Your task to perform on an android device: turn on data saver in the chrome app Image 0: 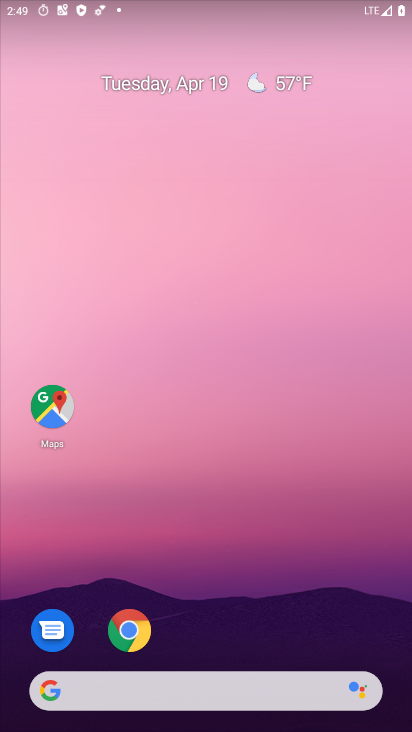
Step 0: drag from (225, 633) to (218, 146)
Your task to perform on an android device: turn on data saver in the chrome app Image 1: 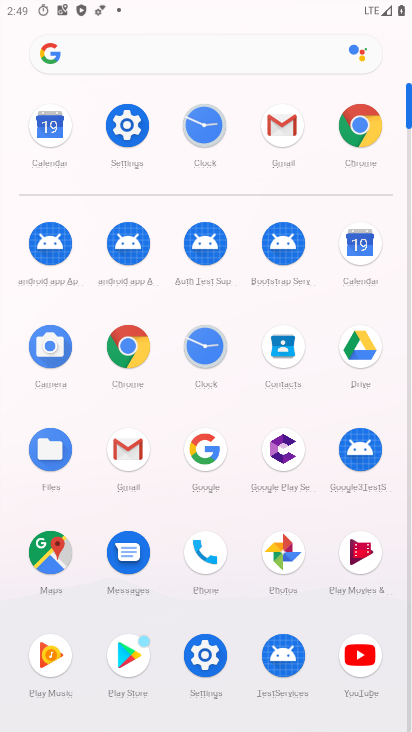
Step 1: click (124, 340)
Your task to perform on an android device: turn on data saver in the chrome app Image 2: 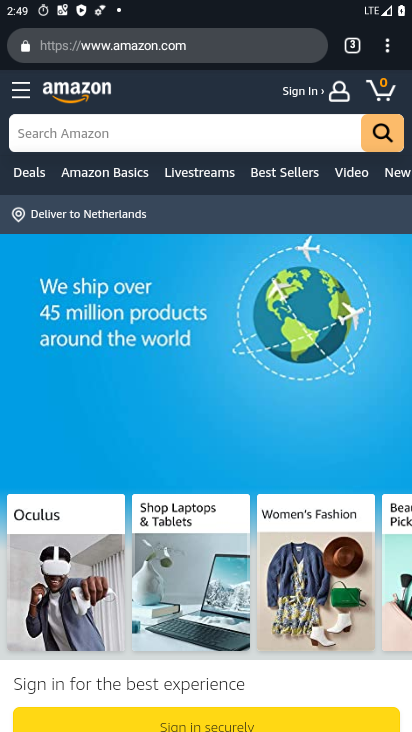
Step 2: click (386, 56)
Your task to perform on an android device: turn on data saver in the chrome app Image 3: 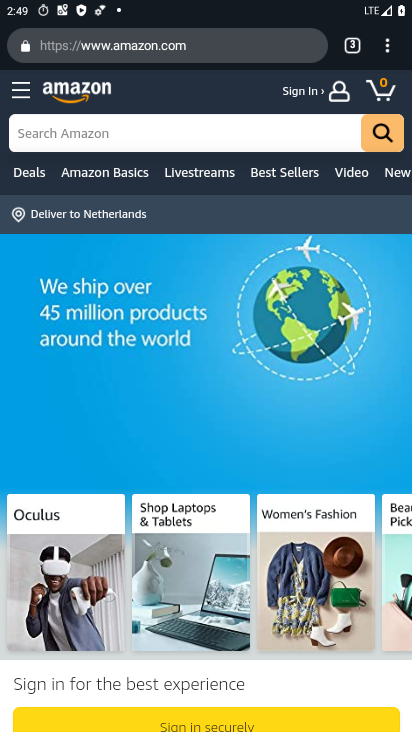
Step 3: click (387, 51)
Your task to perform on an android device: turn on data saver in the chrome app Image 4: 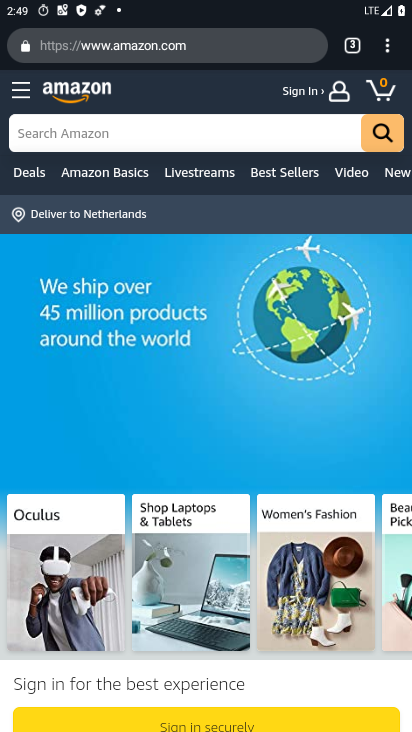
Step 4: click (379, 50)
Your task to perform on an android device: turn on data saver in the chrome app Image 5: 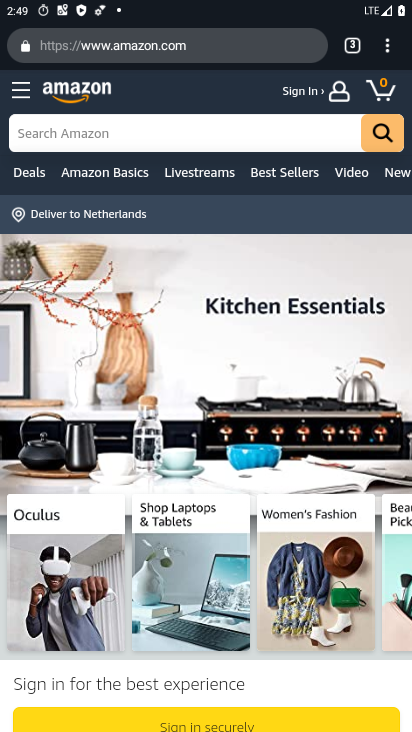
Step 5: click (386, 47)
Your task to perform on an android device: turn on data saver in the chrome app Image 6: 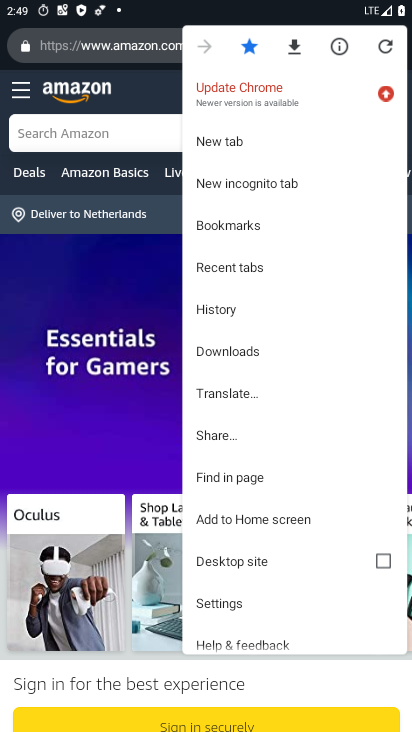
Step 6: click (270, 606)
Your task to perform on an android device: turn on data saver in the chrome app Image 7: 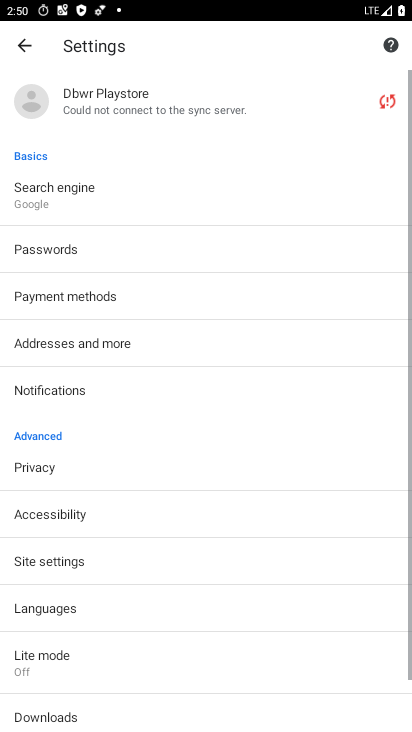
Step 7: drag from (215, 619) to (213, 276)
Your task to perform on an android device: turn on data saver in the chrome app Image 8: 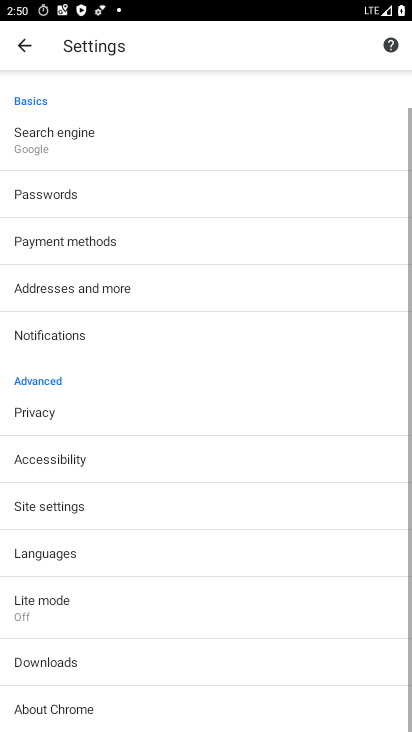
Step 8: click (85, 597)
Your task to perform on an android device: turn on data saver in the chrome app Image 9: 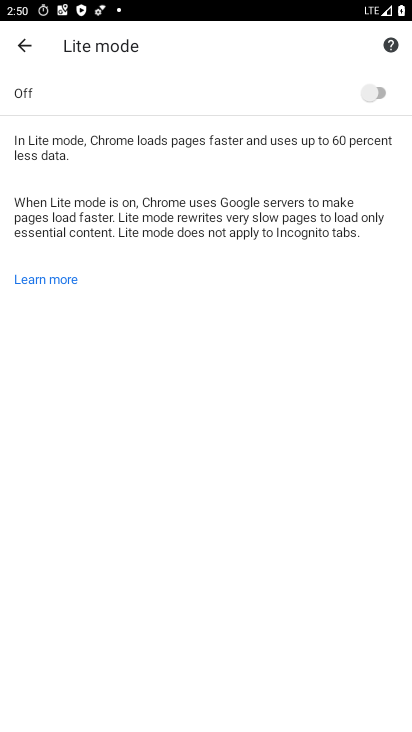
Step 9: click (373, 82)
Your task to perform on an android device: turn on data saver in the chrome app Image 10: 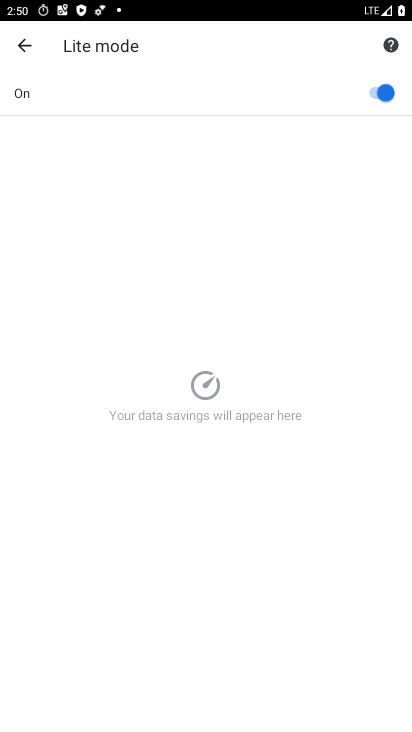
Step 10: task complete